Your task to perform on an android device: turn on data saver in the chrome app Image 0: 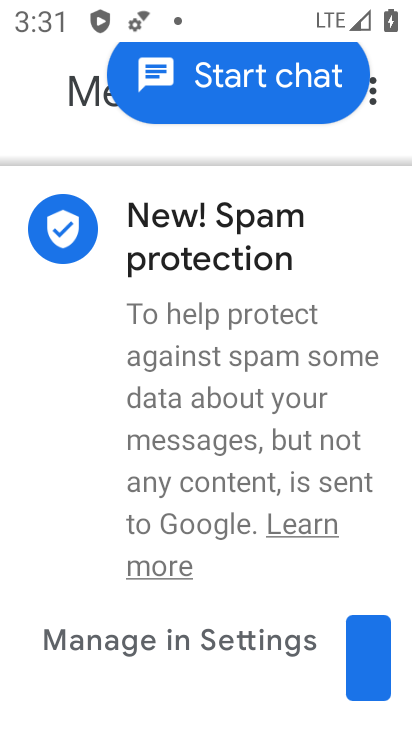
Step 0: press home button
Your task to perform on an android device: turn on data saver in the chrome app Image 1: 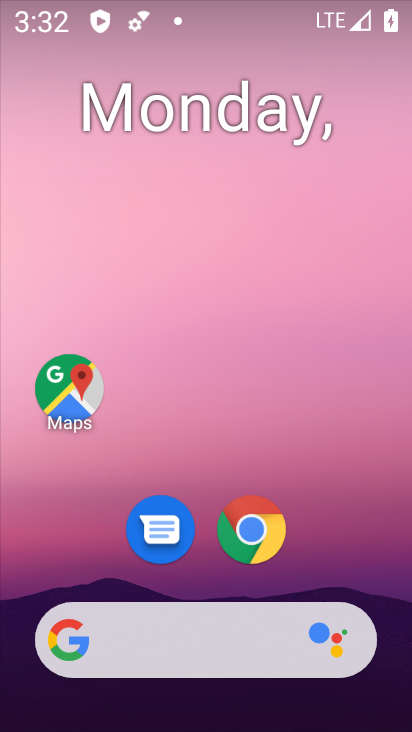
Step 1: click (220, 562)
Your task to perform on an android device: turn on data saver in the chrome app Image 2: 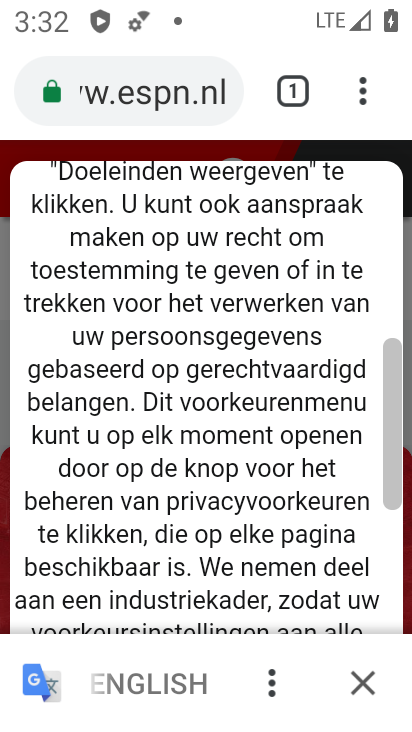
Step 2: click (361, 82)
Your task to perform on an android device: turn on data saver in the chrome app Image 3: 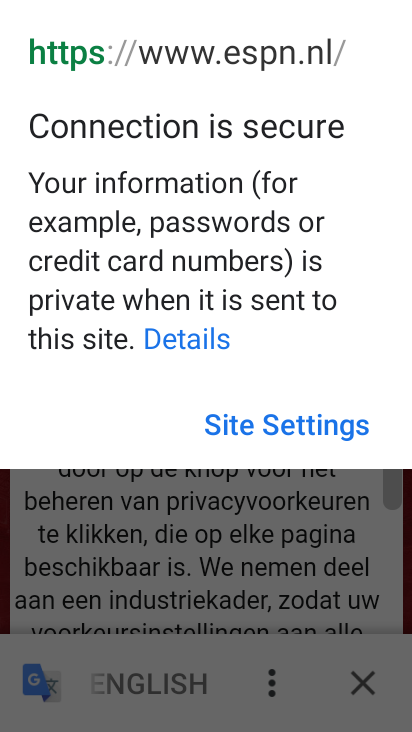
Step 3: click (165, 531)
Your task to perform on an android device: turn on data saver in the chrome app Image 4: 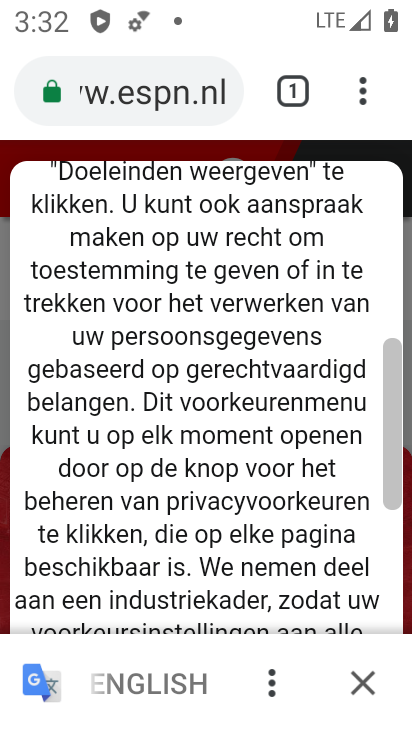
Step 4: drag from (378, 78) to (141, 550)
Your task to perform on an android device: turn on data saver in the chrome app Image 5: 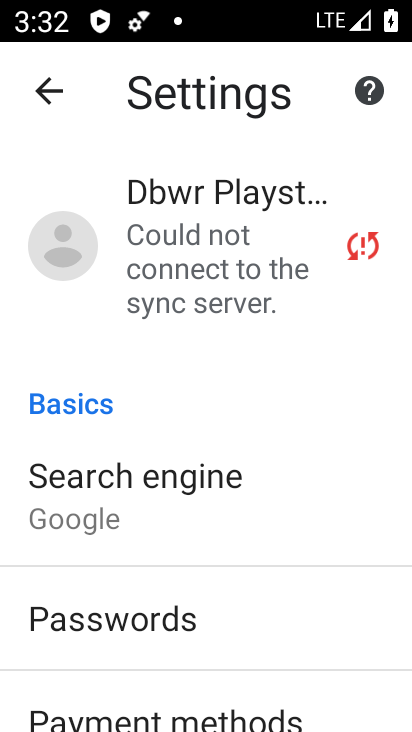
Step 5: drag from (136, 693) to (119, 340)
Your task to perform on an android device: turn on data saver in the chrome app Image 6: 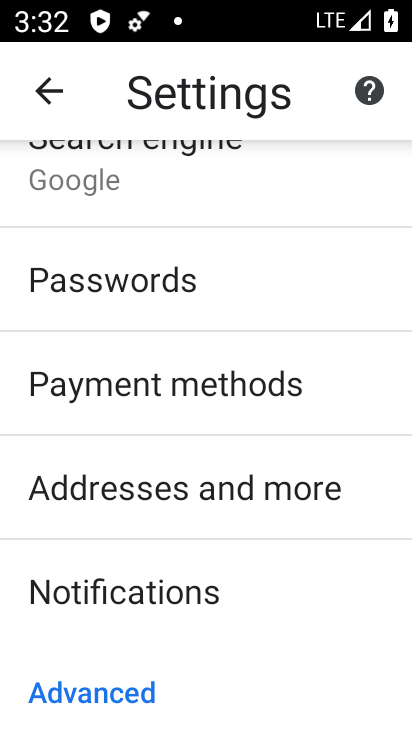
Step 6: drag from (213, 585) to (198, 199)
Your task to perform on an android device: turn on data saver in the chrome app Image 7: 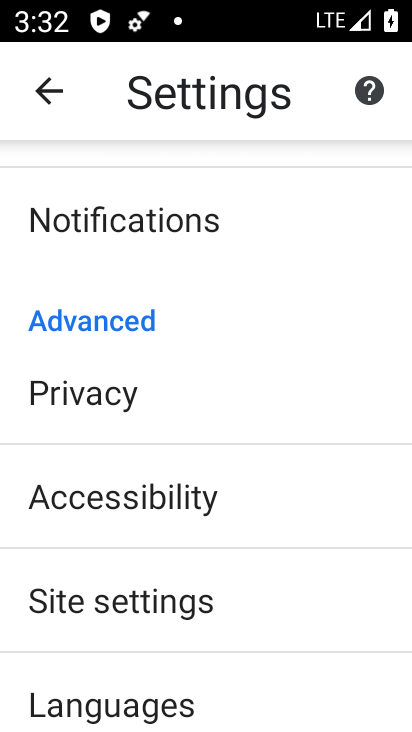
Step 7: drag from (139, 627) to (144, 312)
Your task to perform on an android device: turn on data saver in the chrome app Image 8: 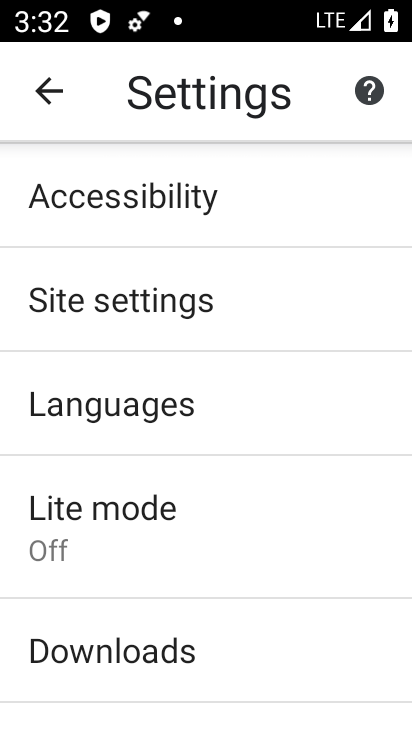
Step 8: click (134, 536)
Your task to perform on an android device: turn on data saver in the chrome app Image 9: 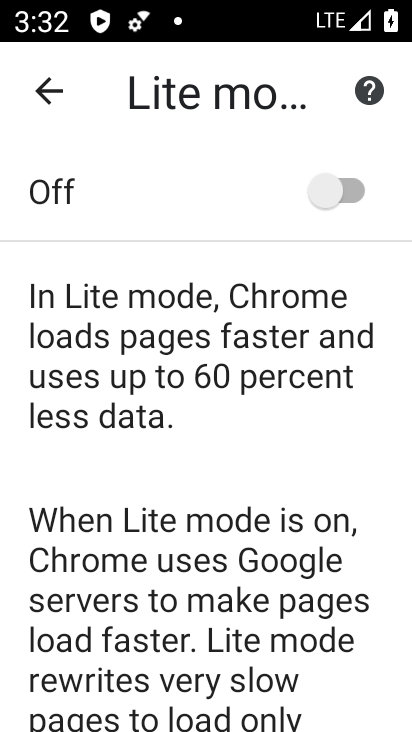
Step 9: click (369, 187)
Your task to perform on an android device: turn on data saver in the chrome app Image 10: 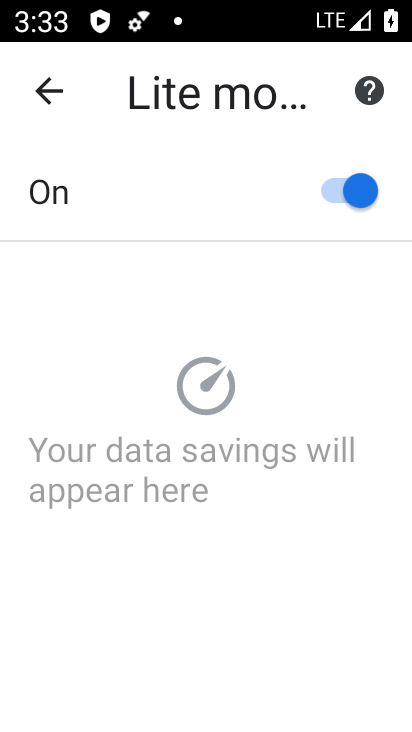
Step 10: task complete